Your task to perform on an android device: set default search engine in the chrome app Image 0: 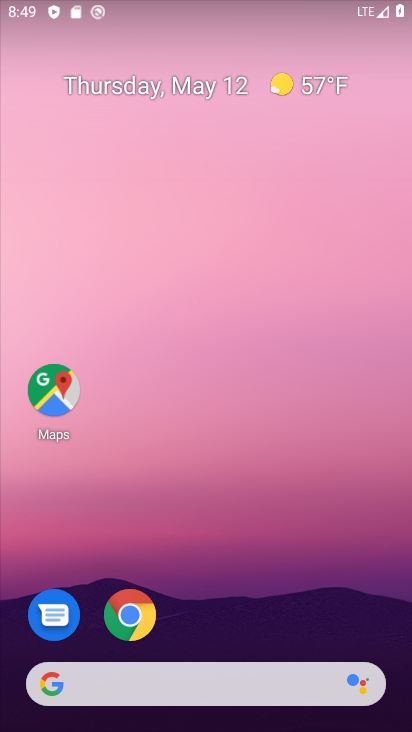
Step 0: drag from (237, 605) to (216, 1)
Your task to perform on an android device: set default search engine in the chrome app Image 1: 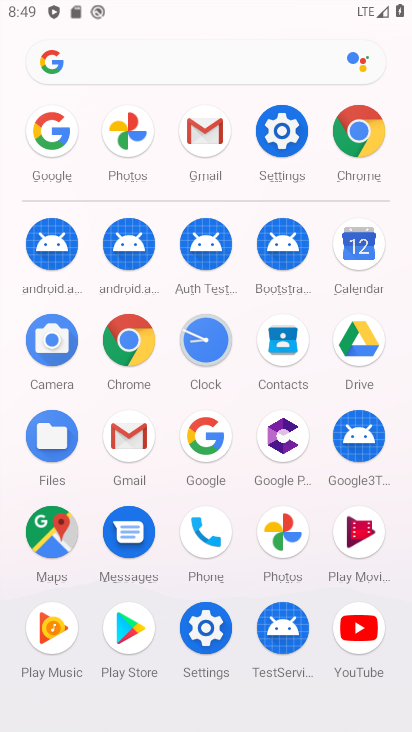
Step 1: click (126, 337)
Your task to perform on an android device: set default search engine in the chrome app Image 2: 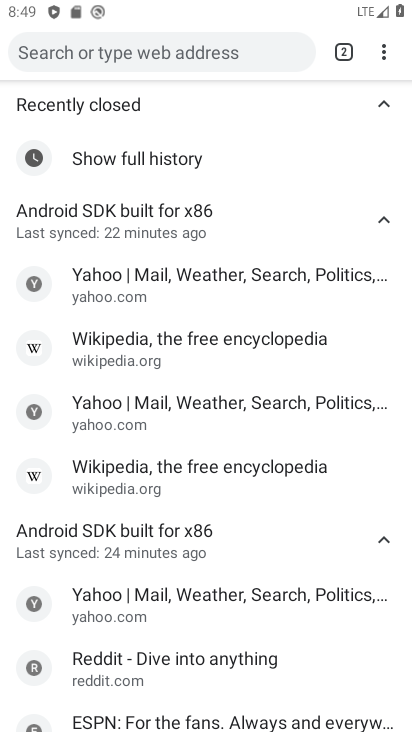
Step 2: drag from (380, 47) to (213, 440)
Your task to perform on an android device: set default search engine in the chrome app Image 3: 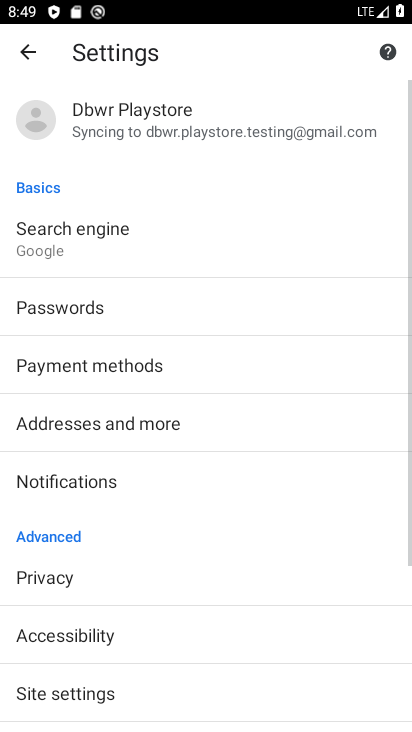
Step 3: drag from (222, 574) to (222, 180)
Your task to perform on an android device: set default search engine in the chrome app Image 4: 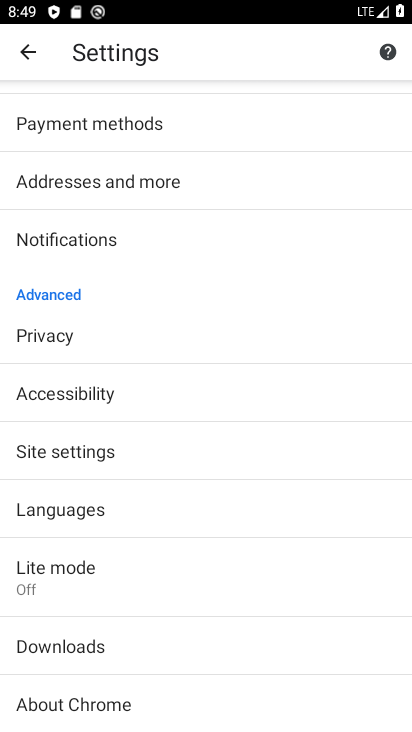
Step 4: drag from (168, 547) to (265, 120)
Your task to perform on an android device: set default search engine in the chrome app Image 5: 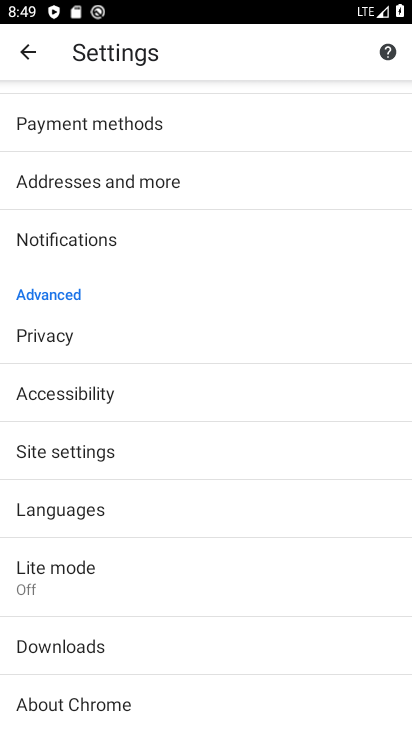
Step 5: drag from (183, 550) to (213, 188)
Your task to perform on an android device: set default search engine in the chrome app Image 6: 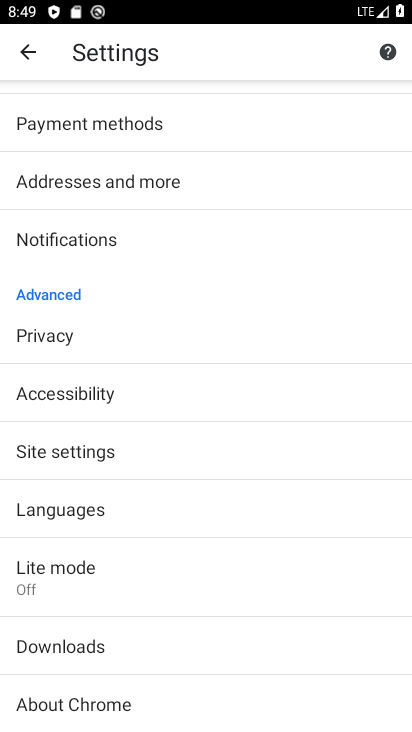
Step 6: drag from (211, 600) to (241, 143)
Your task to perform on an android device: set default search engine in the chrome app Image 7: 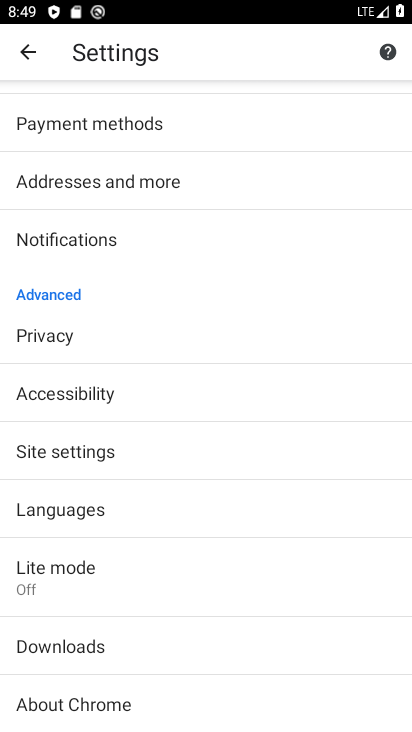
Step 7: drag from (232, 626) to (247, 196)
Your task to perform on an android device: set default search engine in the chrome app Image 8: 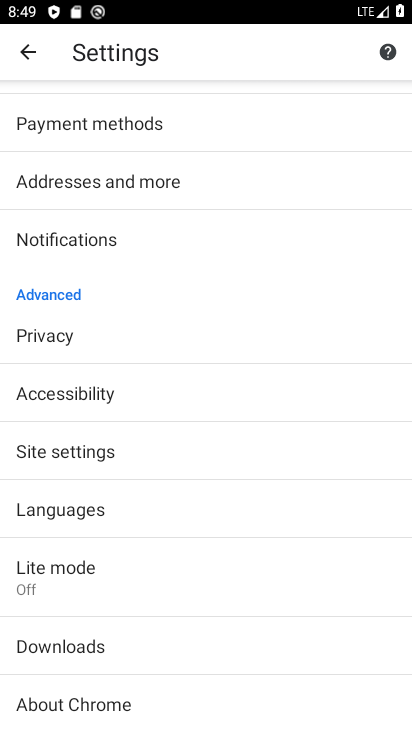
Step 8: drag from (178, 563) to (237, 266)
Your task to perform on an android device: set default search engine in the chrome app Image 9: 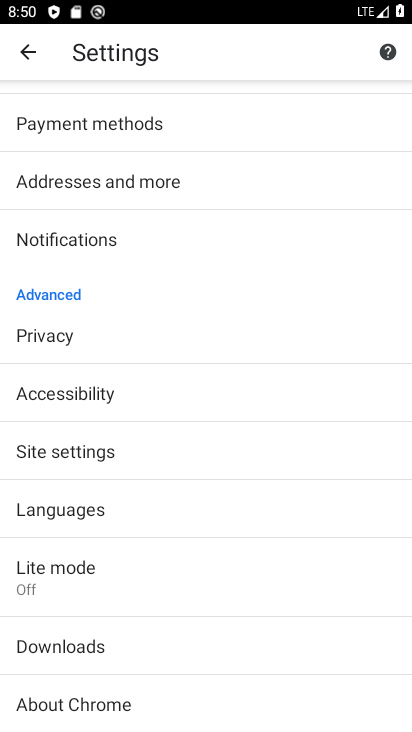
Step 9: drag from (239, 587) to (280, 209)
Your task to perform on an android device: set default search engine in the chrome app Image 10: 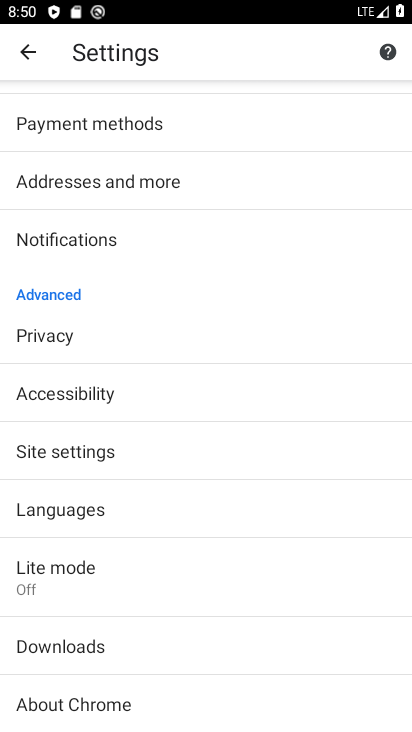
Step 10: drag from (206, 232) to (224, 628)
Your task to perform on an android device: set default search engine in the chrome app Image 11: 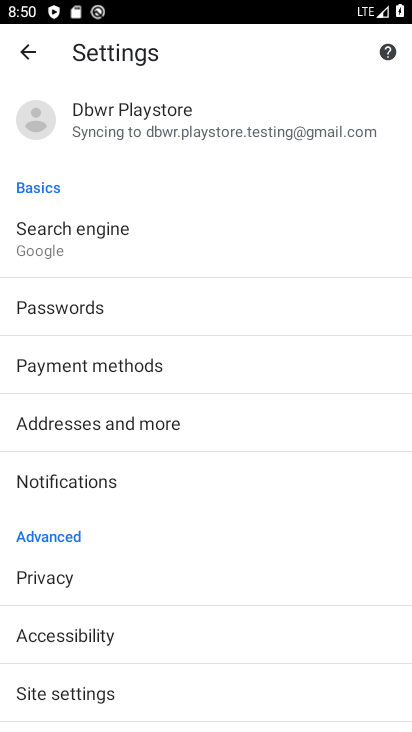
Step 11: click (105, 242)
Your task to perform on an android device: set default search engine in the chrome app Image 12: 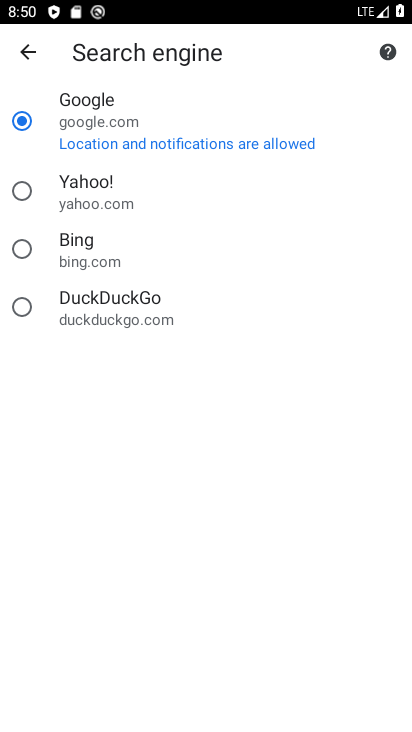
Step 12: click (110, 282)
Your task to perform on an android device: set default search engine in the chrome app Image 13: 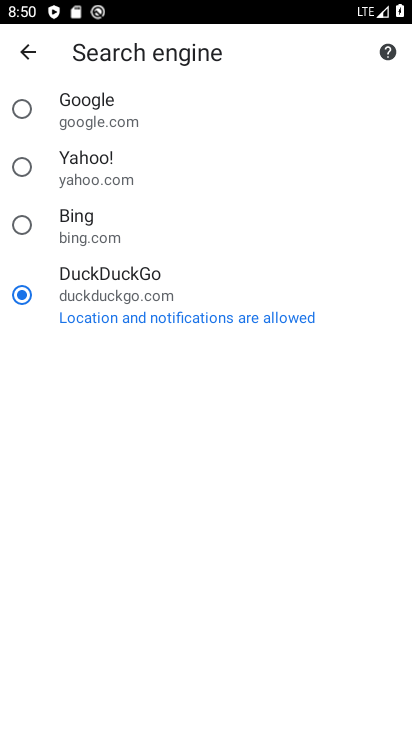
Step 13: task complete